Your task to perform on an android device: Add razer huntsman to the cart on ebay.com Image 0: 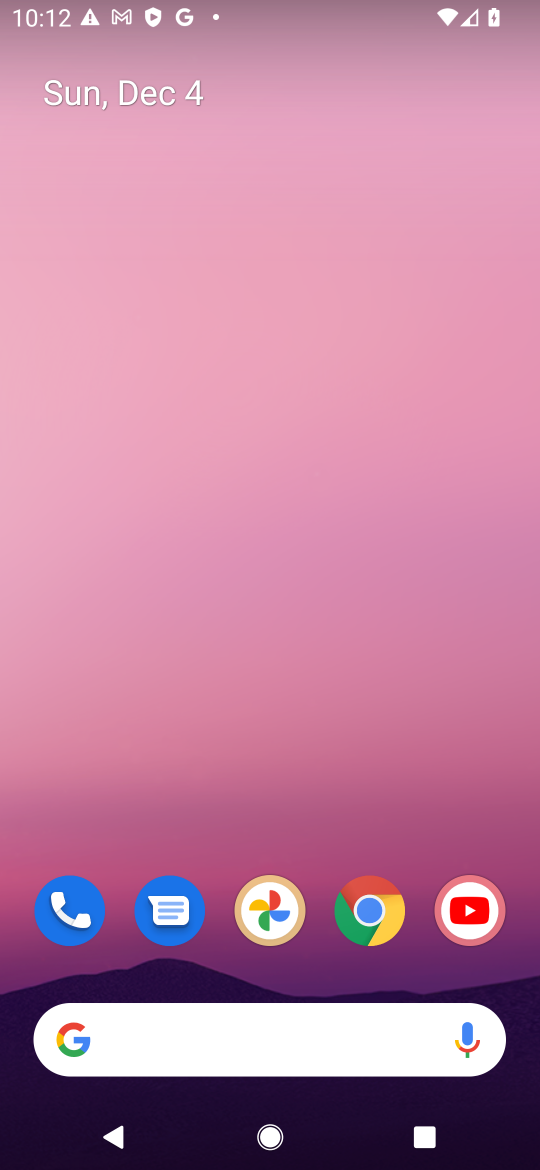
Step 0: drag from (341, 1131) to (325, 100)
Your task to perform on an android device: Add razer huntsman to the cart on ebay.com Image 1: 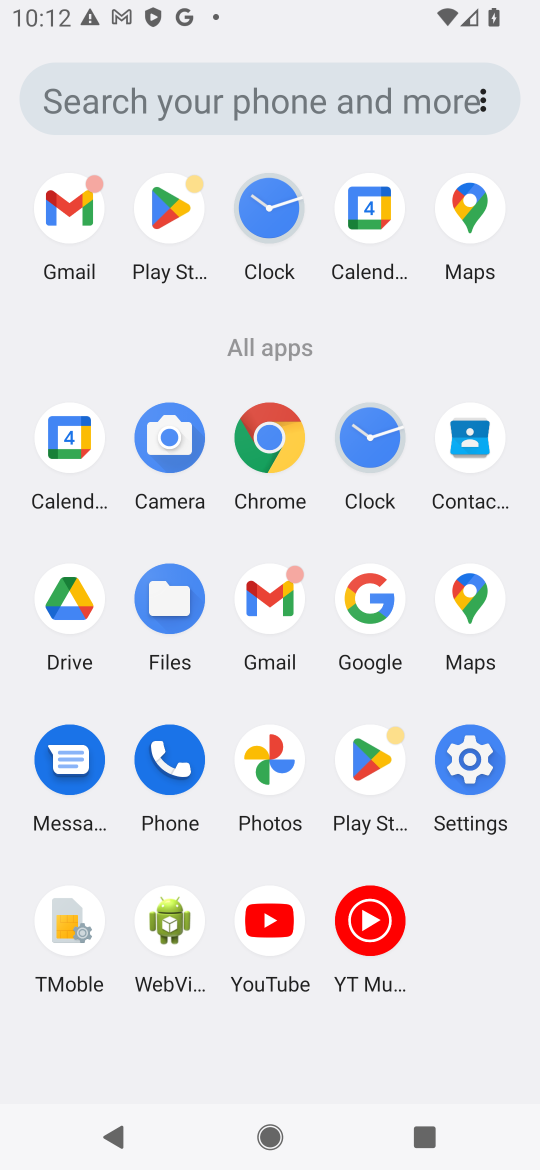
Step 1: click (263, 428)
Your task to perform on an android device: Add razer huntsman to the cart on ebay.com Image 2: 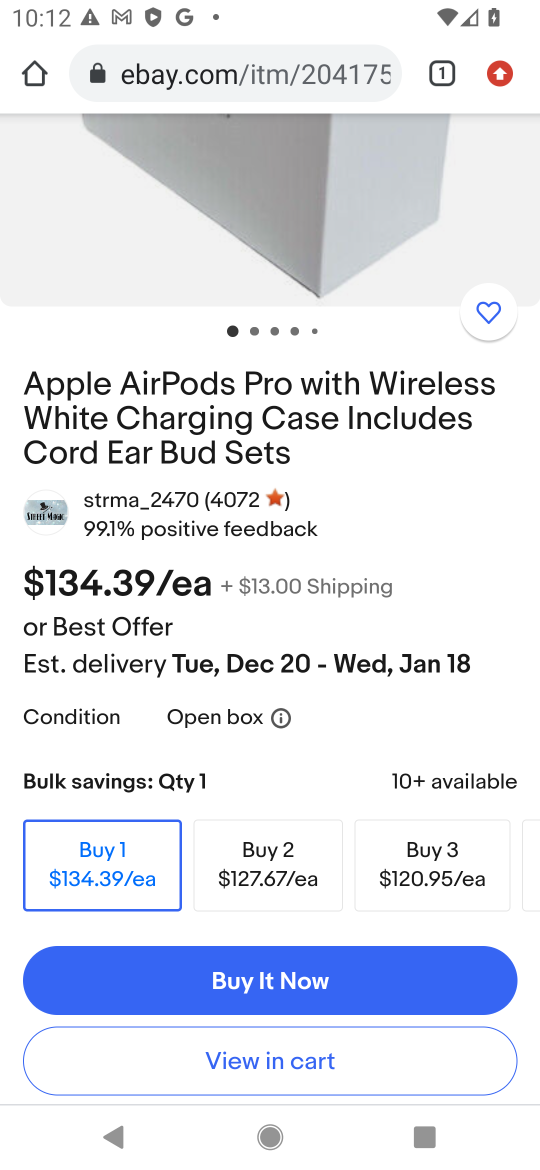
Step 2: click (175, 84)
Your task to perform on an android device: Add razer huntsman to the cart on ebay.com Image 3: 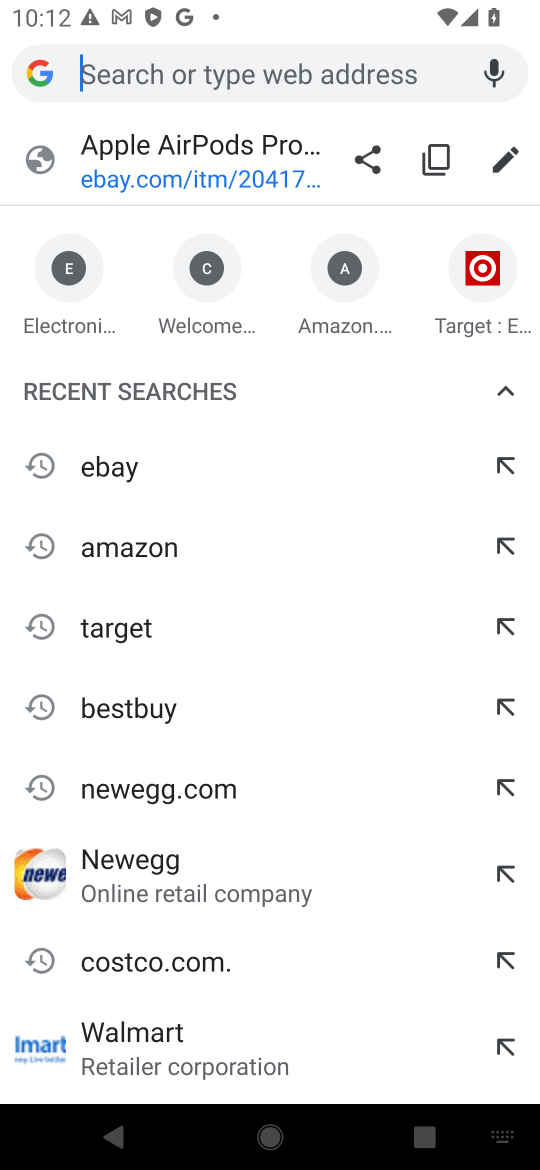
Step 3: type "ebay.com"
Your task to perform on an android device: Add razer huntsman to the cart on ebay.com Image 4: 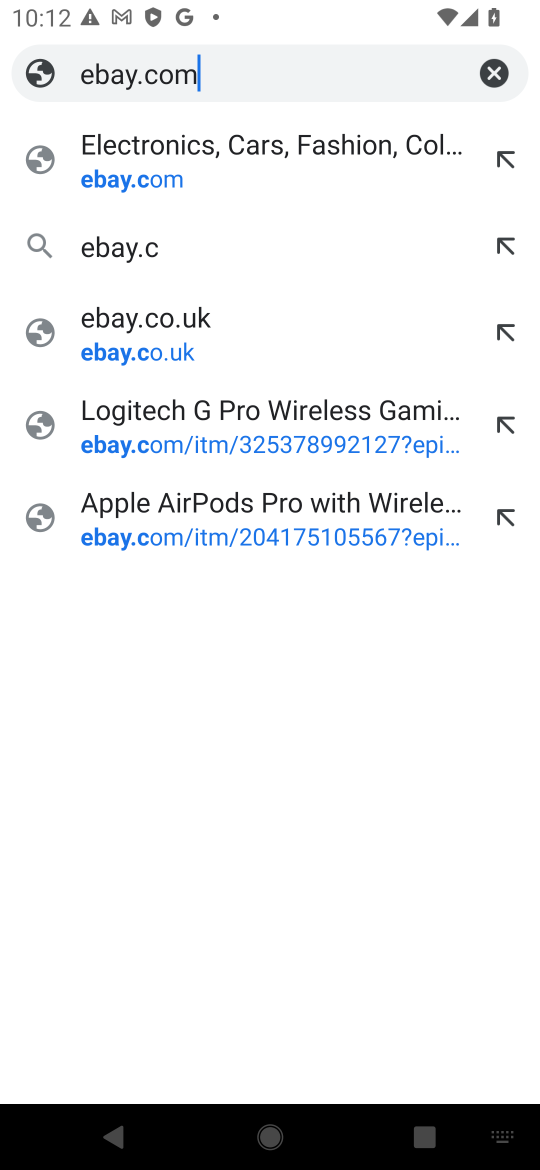
Step 4: type ""
Your task to perform on an android device: Add razer huntsman to the cart on ebay.com Image 5: 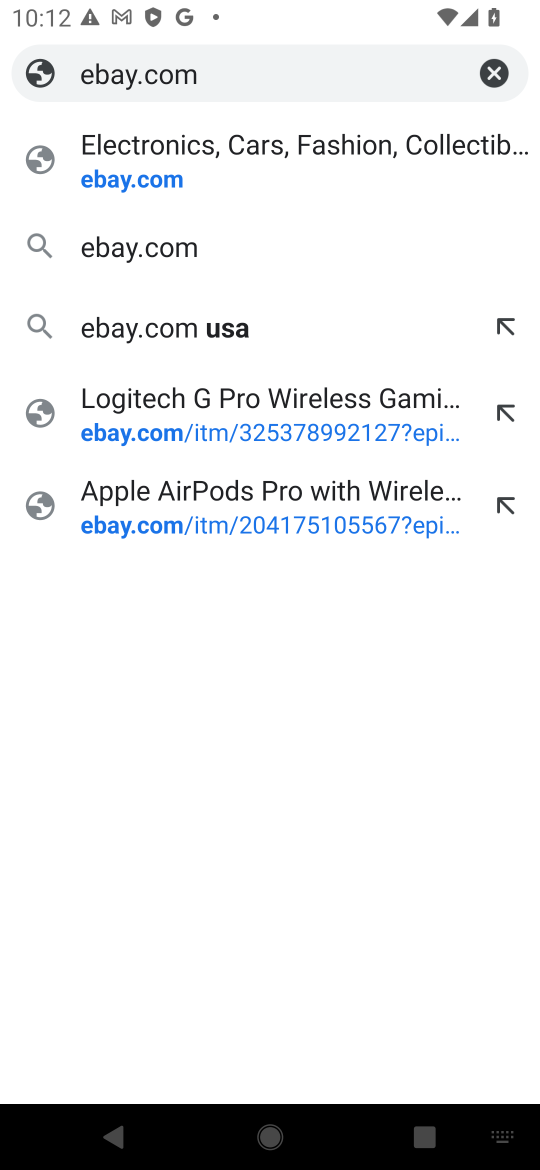
Step 5: click (134, 184)
Your task to perform on an android device: Add razer huntsman to the cart on ebay.com Image 6: 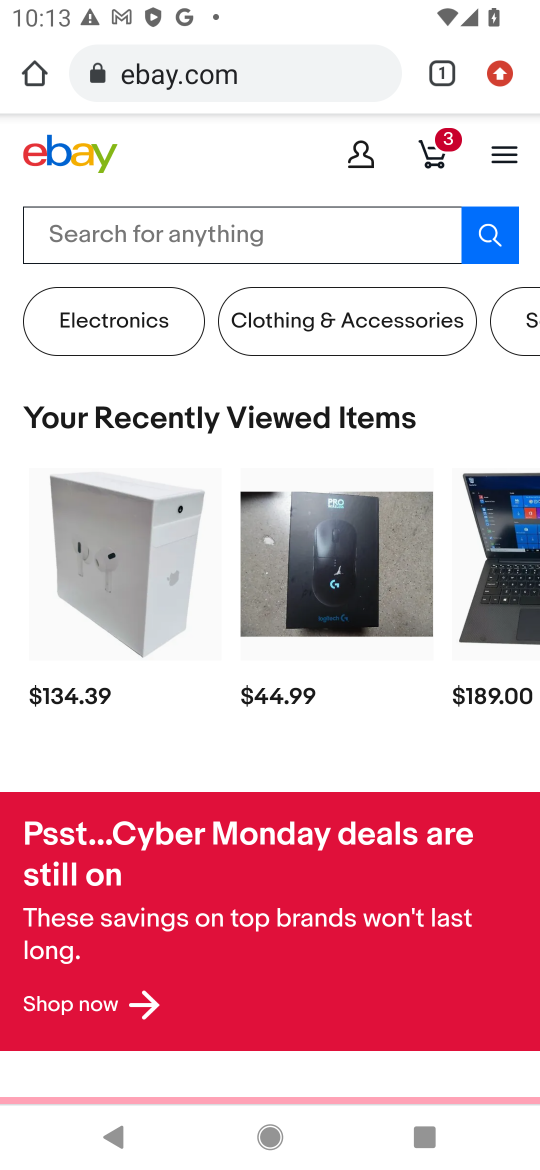
Step 6: click (118, 241)
Your task to perform on an android device: Add razer huntsman to the cart on ebay.com Image 7: 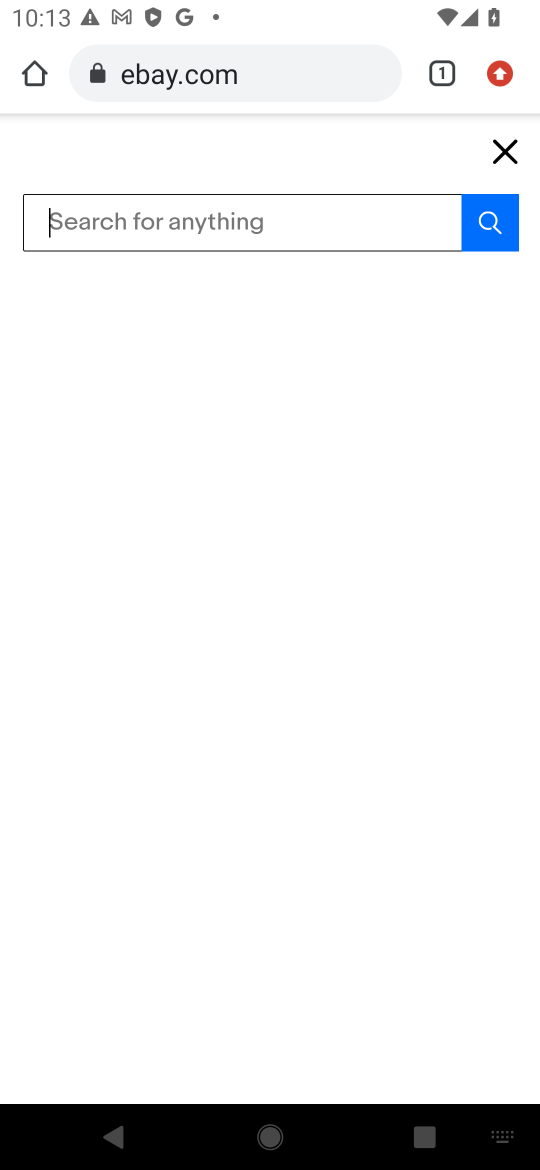
Step 7: type "razer huntsman"
Your task to perform on an android device: Add razer huntsman to the cart on ebay.com Image 8: 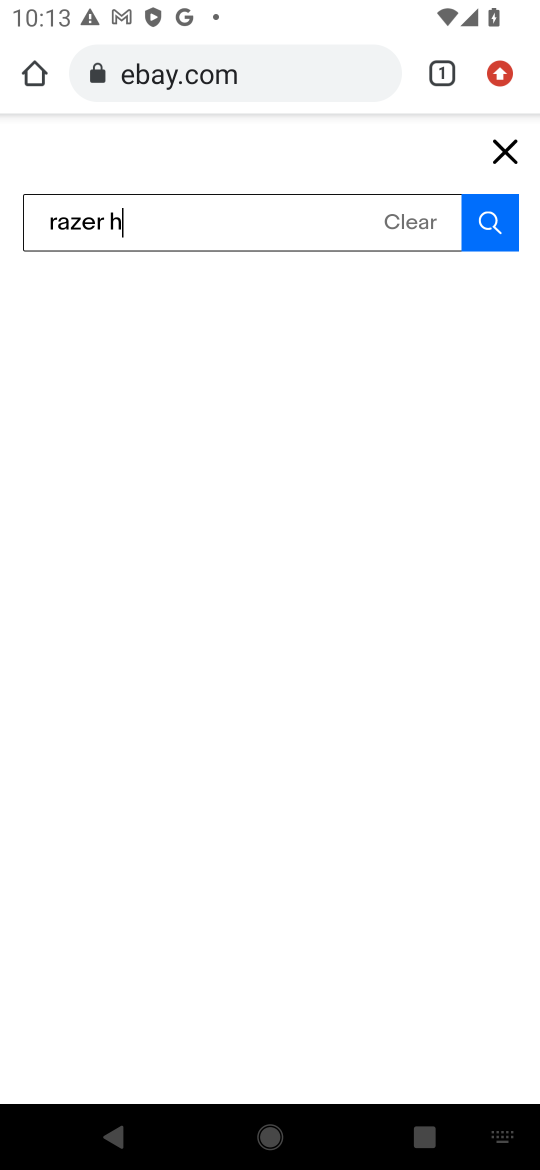
Step 8: type ""
Your task to perform on an android device: Add razer huntsman to the cart on ebay.com Image 9: 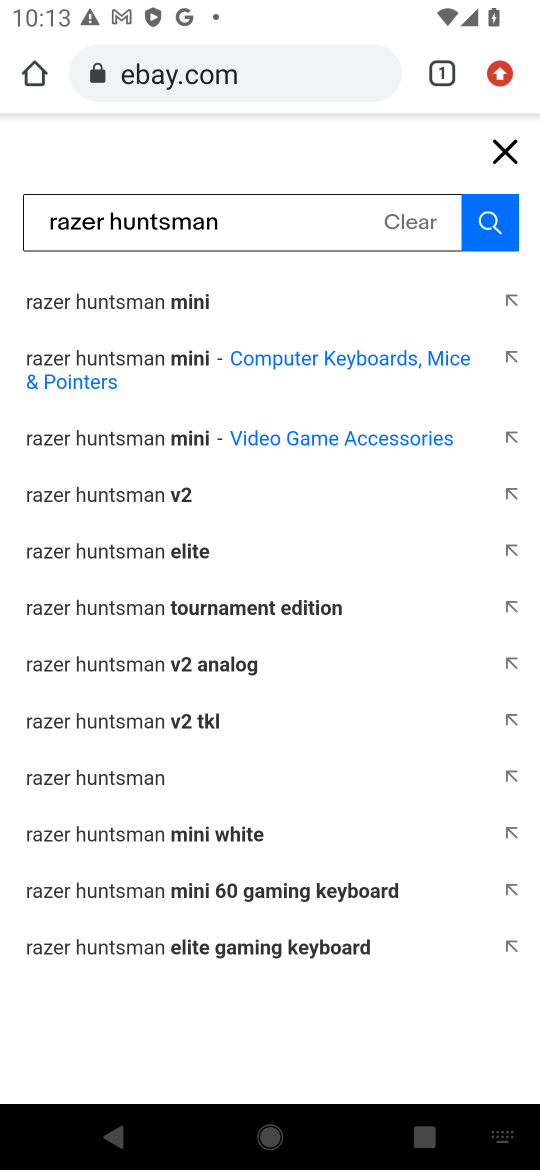
Step 9: click (100, 769)
Your task to perform on an android device: Add razer huntsman to the cart on ebay.com Image 10: 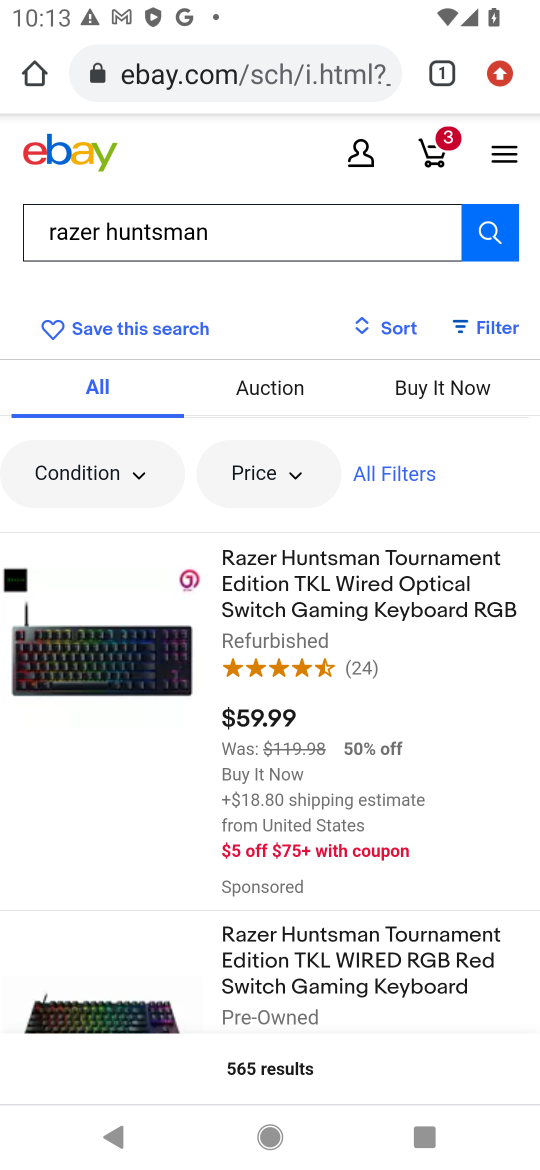
Step 10: click (129, 736)
Your task to perform on an android device: Add razer huntsman to the cart on ebay.com Image 11: 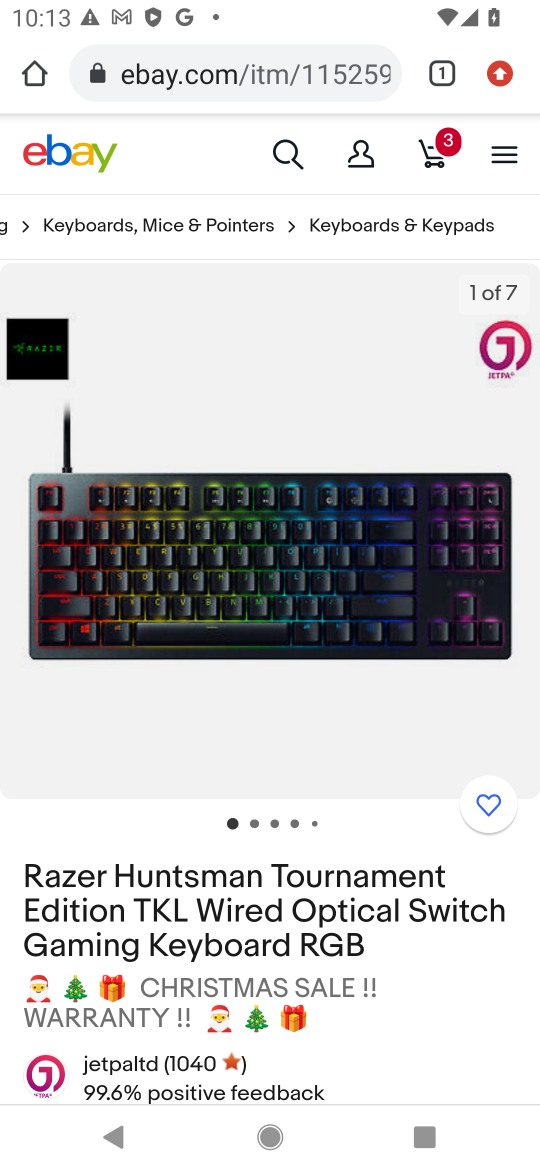
Step 11: drag from (314, 845) to (316, 314)
Your task to perform on an android device: Add razer huntsman to the cart on ebay.com Image 12: 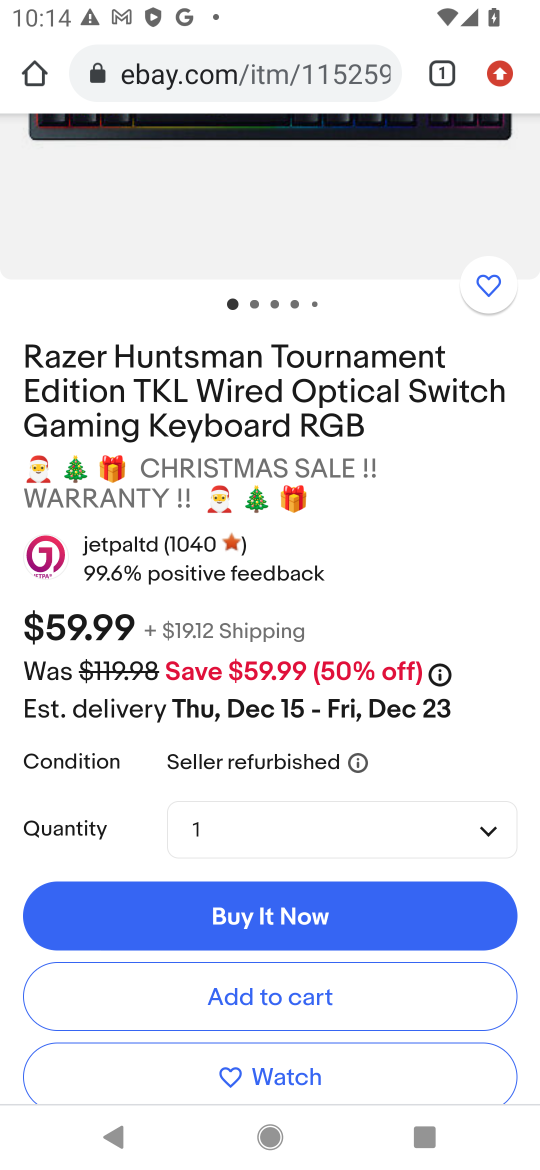
Step 12: click (269, 997)
Your task to perform on an android device: Add razer huntsman to the cart on ebay.com Image 13: 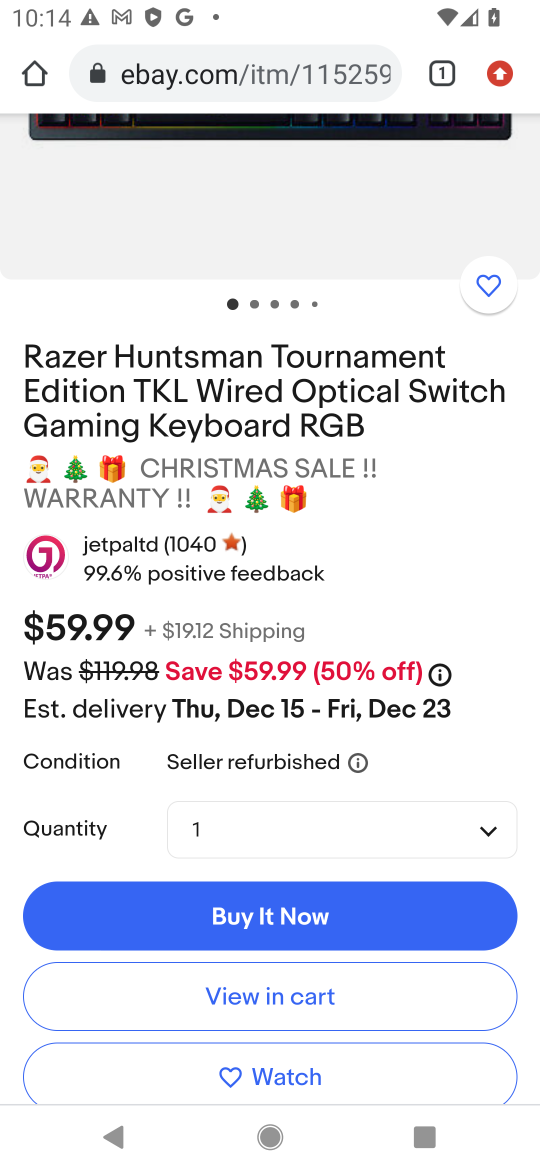
Step 13: task complete